Your task to perform on an android device: Open wifi settings Image 0: 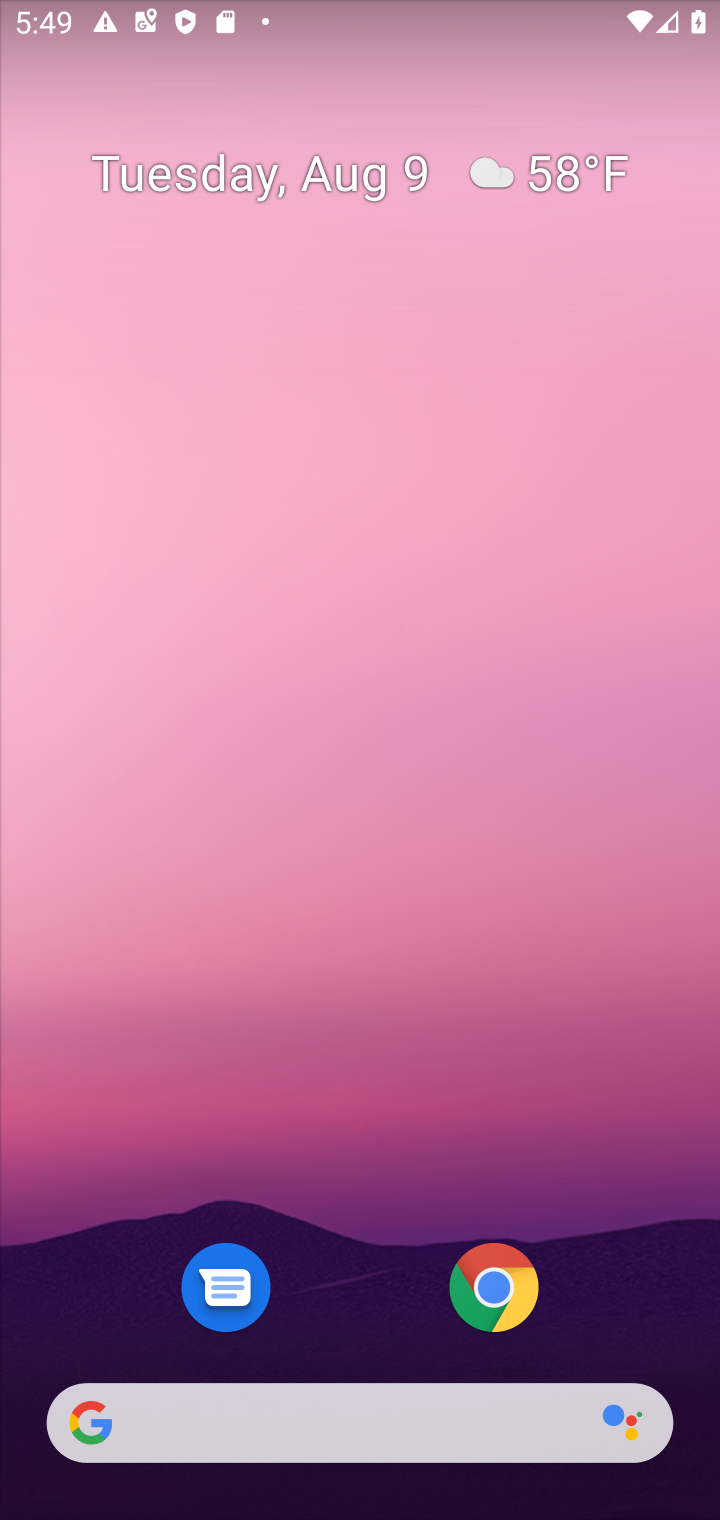
Step 0: task complete